Your task to perform on an android device: empty trash in google photos Image 0: 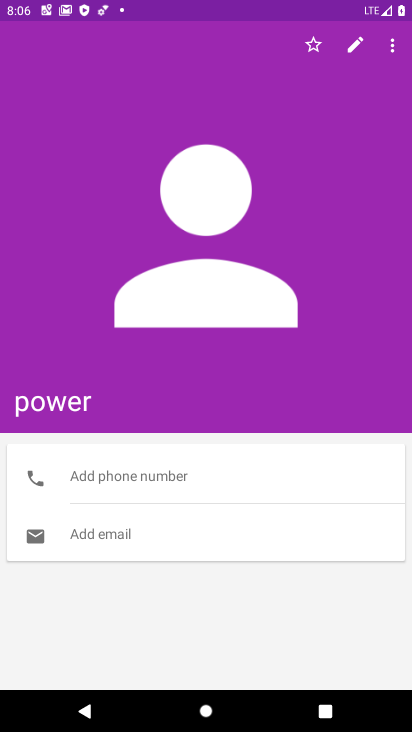
Step 0: press home button
Your task to perform on an android device: empty trash in google photos Image 1: 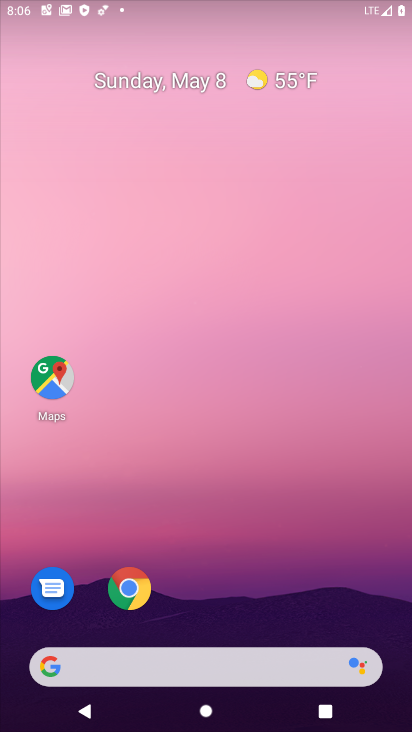
Step 1: drag from (352, 602) to (301, 148)
Your task to perform on an android device: empty trash in google photos Image 2: 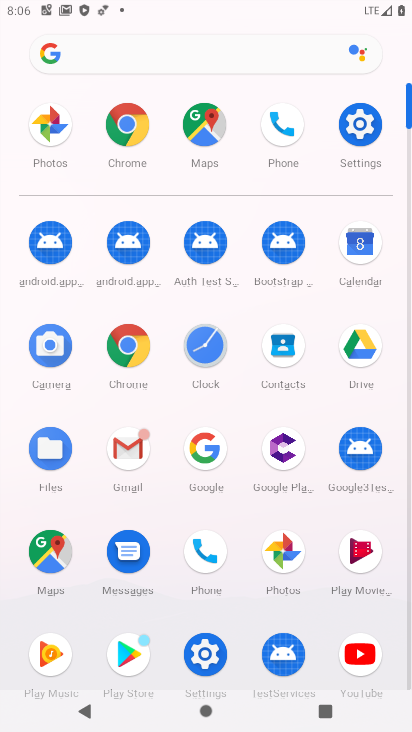
Step 2: click (289, 547)
Your task to perform on an android device: empty trash in google photos Image 3: 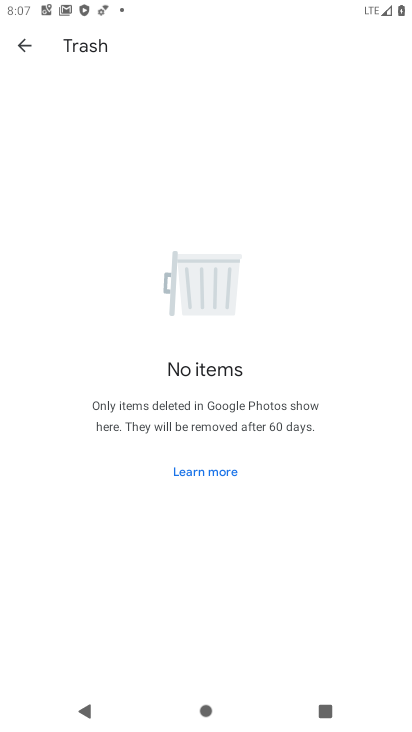
Step 3: task complete